Your task to perform on an android device: turn on translation in the chrome app Image 0: 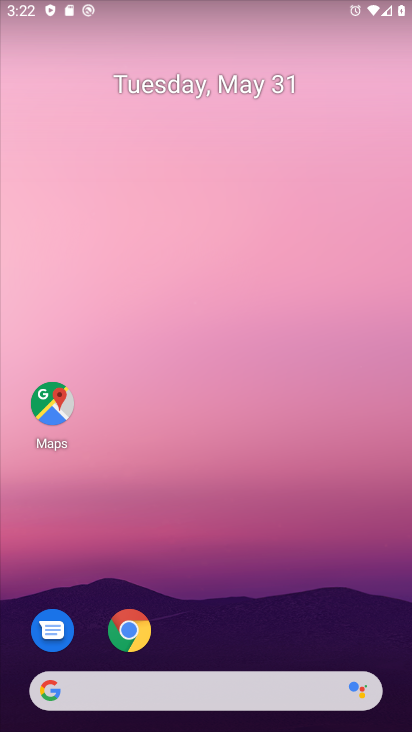
Step 0: drag from (326, 697) to (284, 26)
Your task to perform on an android device: turn on translation in the chrome app Image 1: 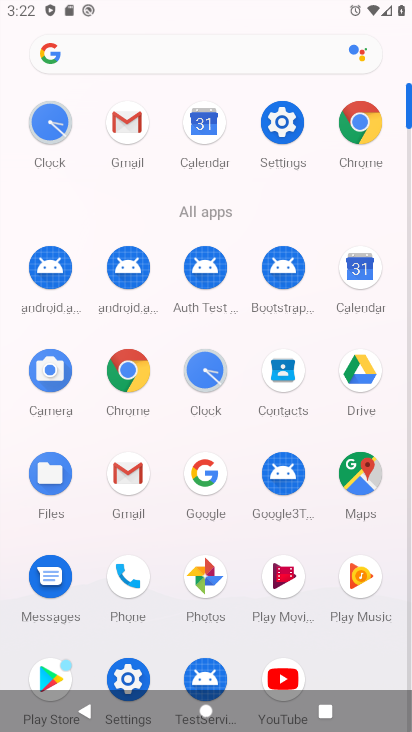
Step 1: click (125, 389)
Your task to perform on an android device: turn on translation in the chrome app Image 2: 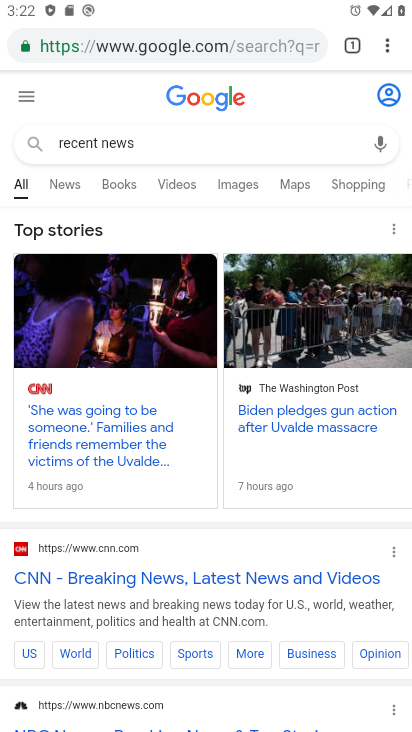
Step 2: drag from (380, 43) to (251, 499)
Your task to perform on an android device: turn on translation in the chrome app Image 3: 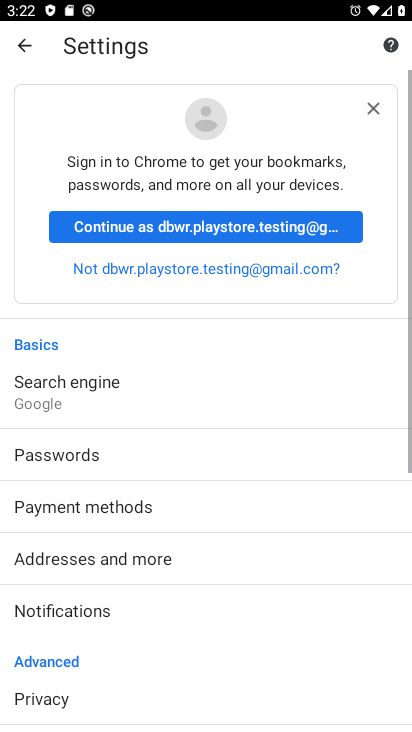
Step 3: drag from (267, 625) to (65, 9)
Your task to perform on an android device: turn on translation in the chrome app Image 4: 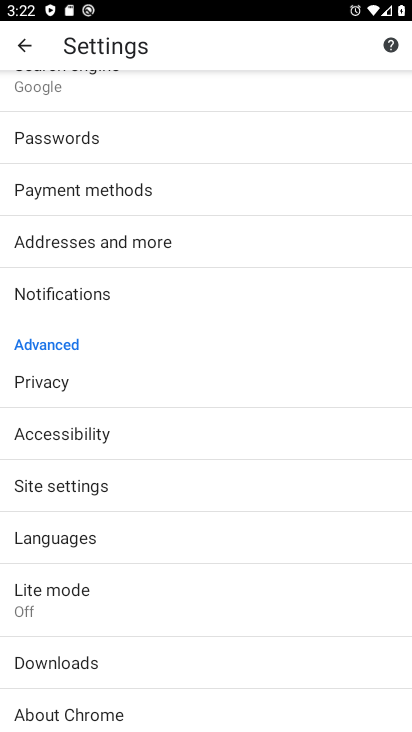
Step 4: click (118, 559)
Your task to perform on an android device: turn on translation in the chrome app Image 5: 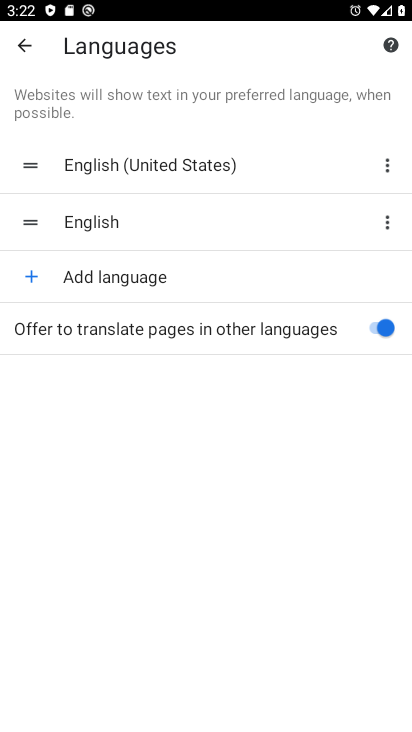
Step 5: task complete